Your task to perform on an android device: Open Amazon Image 0: 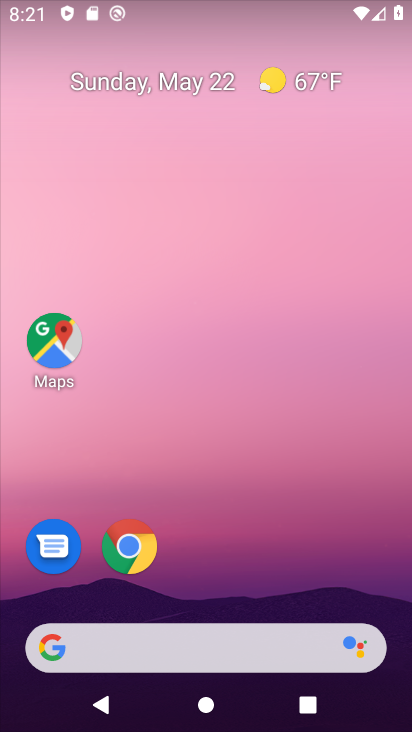
Step 0: click (139, 541)
Your task to perform on an android device: Open Amazon Image 1: 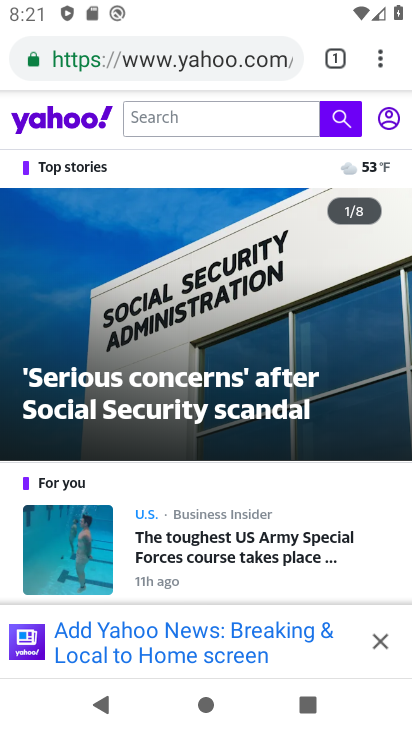
Step 1: click (191, 51)
Your task to perform on an android device: Open Amazon Image 2: 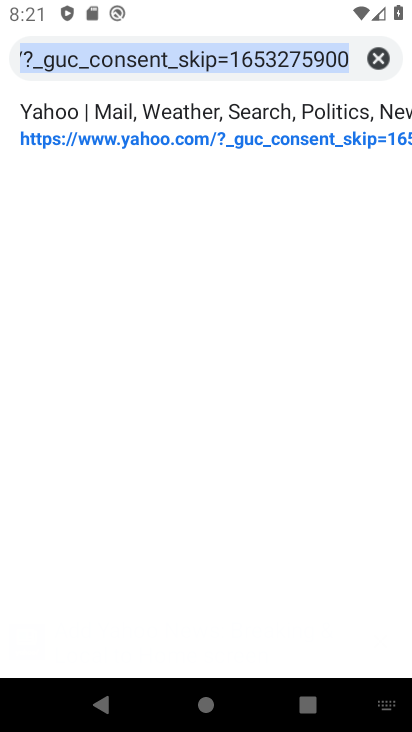
Step 2: type "Amazon"
Your task to perform on an android device: Open Amazon Image 3: 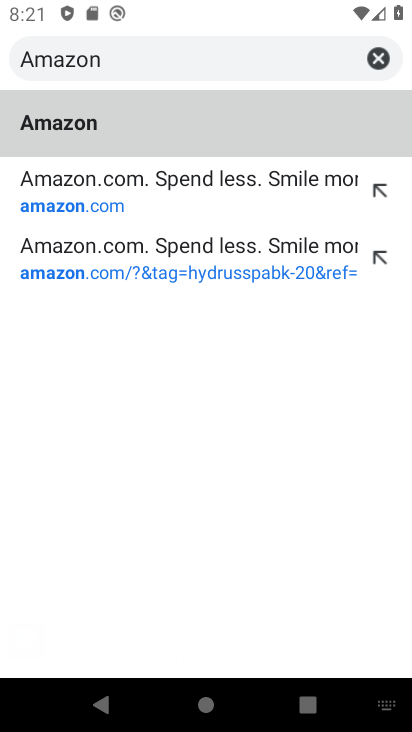
Step 3: click (130, 131)
Your task to perform on an android device: Open Amazon Image 4: 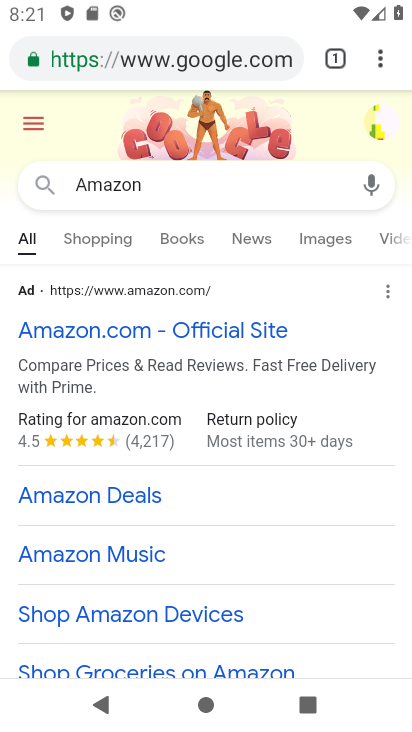
Step 4: task complete